Your task to perform on an android device: Open Wikipedia Image 0: 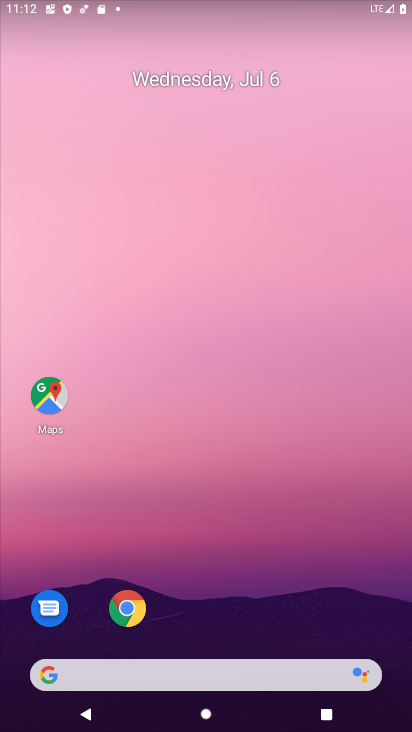
Step 0: click (135, 606)
Your task to perform on an android device: Open Wikipedia Image 1: 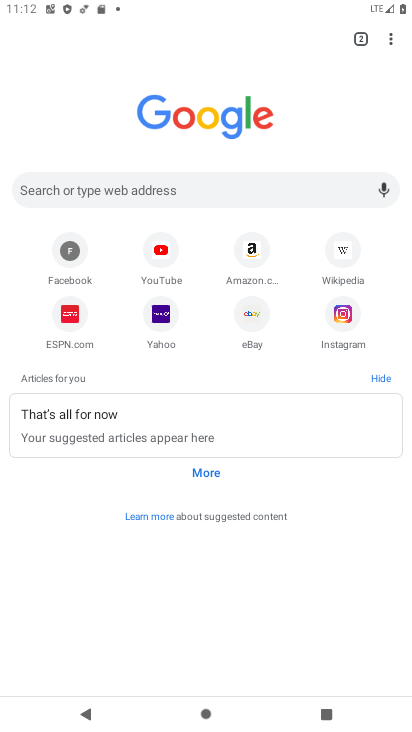
Step 1: click (350, 260)
Your task to perform on an android device: Open Wikipedia Image 2: 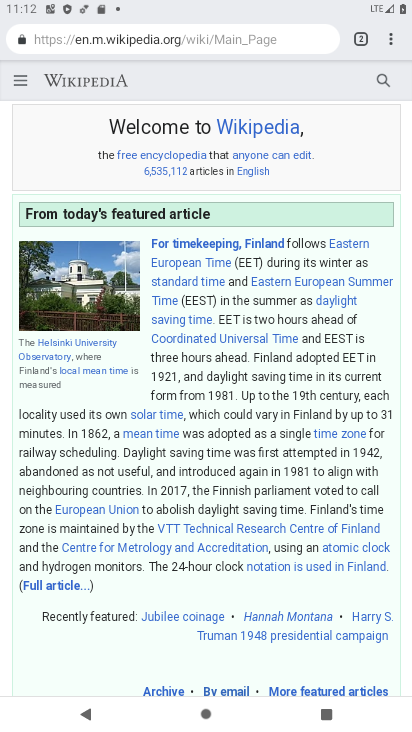
Step 2: task complete